Your task to perform on an android device: Search for flights from Buenos aires to Tokyo Image 0: 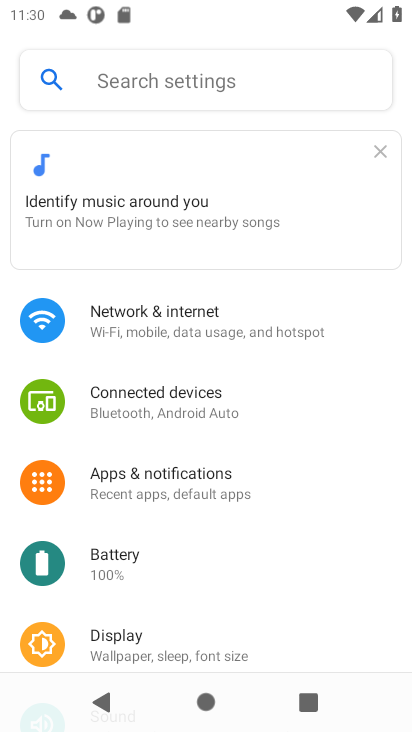
Step 0: press home button
Your task to perform on an android device: Search for flights from Buenos aires to Tokyo Image 1: 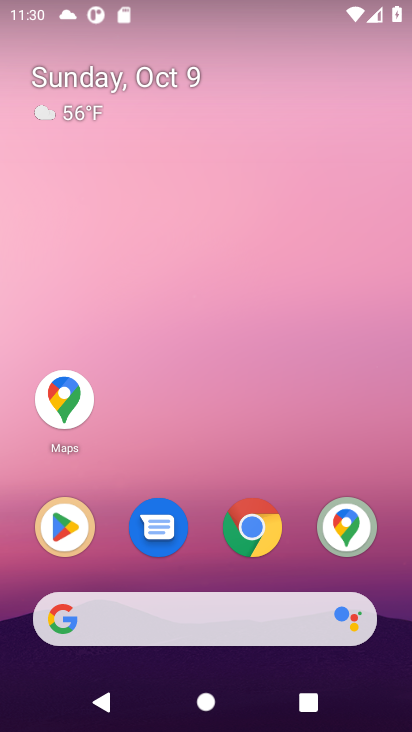
Step 1: click (254, 533)
Your task to perform on an android device: Search for flights from Buenos aires to Tokyo Image 2: 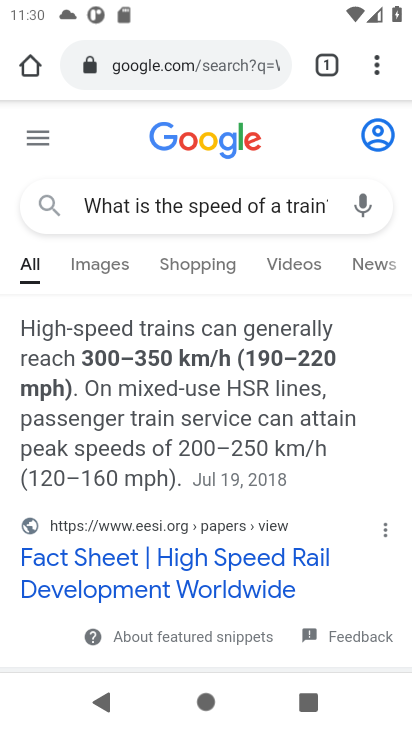
Step 2: click (182, 208)
Your task to perform on an android device: Search for flights from Buenos aires to Tokyo Image 3: 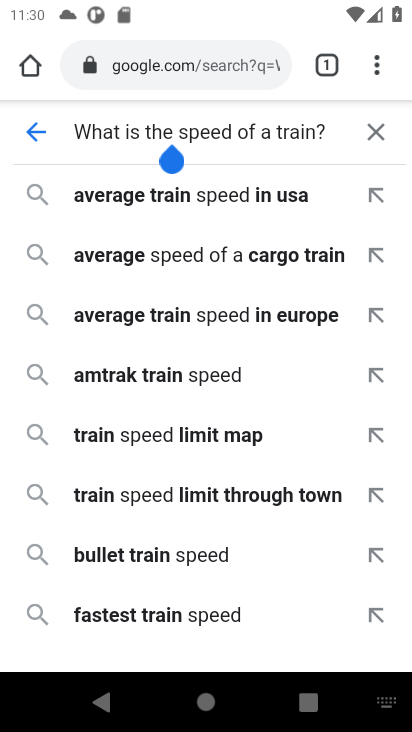
Step 3: click (379, 134)
Your task to perform on an android device: Search for flights from Buenos aires to Tokyo Image 4: 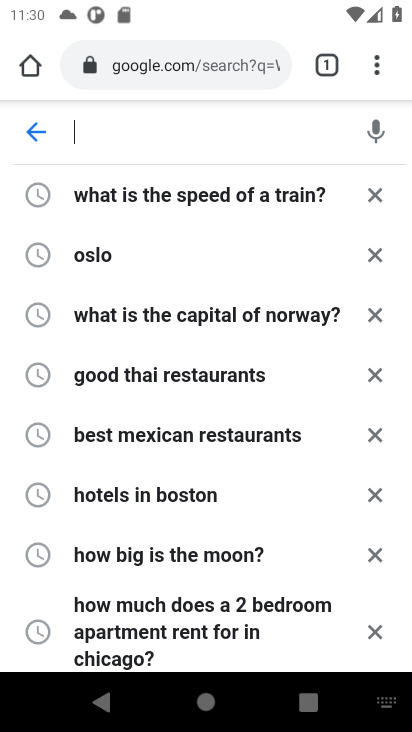
Step 4: type " flights from Buenos aires to Tokyo"
Your task to perform on an android device: Search for flights from Buenos aires to Tokyo Image 5: 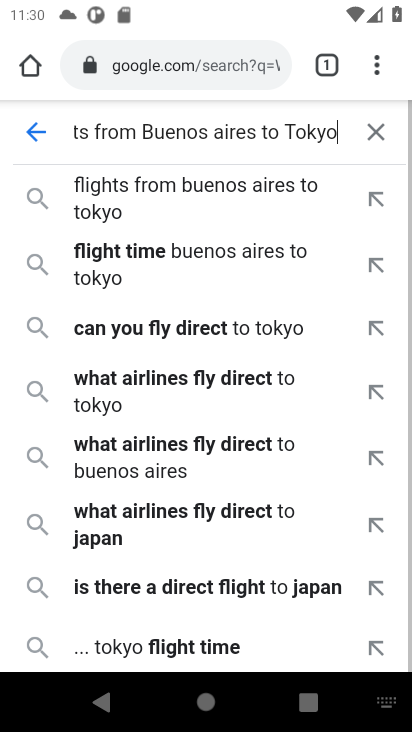
Step 5: click (192, 191)
Your task to perform on an android device: Search for flights from Buenos aires to Tokyo Image 6: 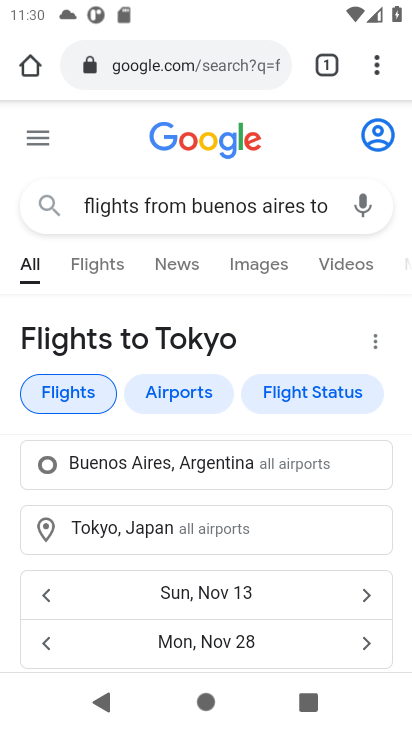
Step 6: task complete